Your task to perform on an android device: delete location history Image 0: 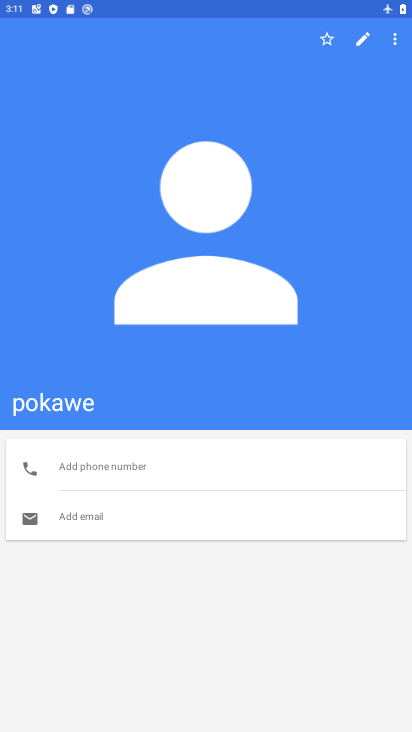
Step 0: press home button
Your task to perform on an android device: delete location history Image 1: 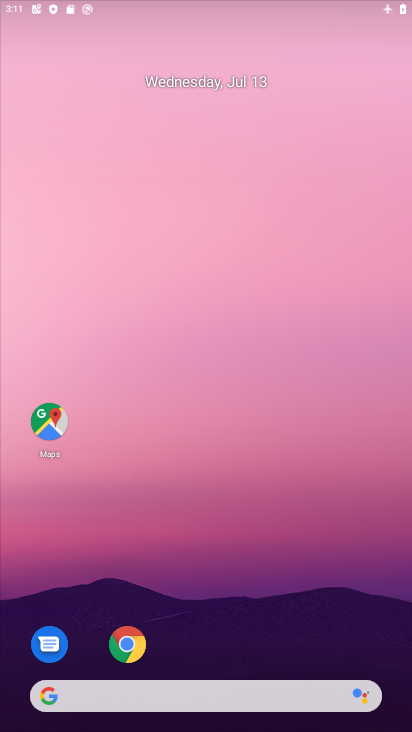
Step 1: drag from (313, 655) to (252, 103)
Your task to perform on an android device: delete location history Image 2: 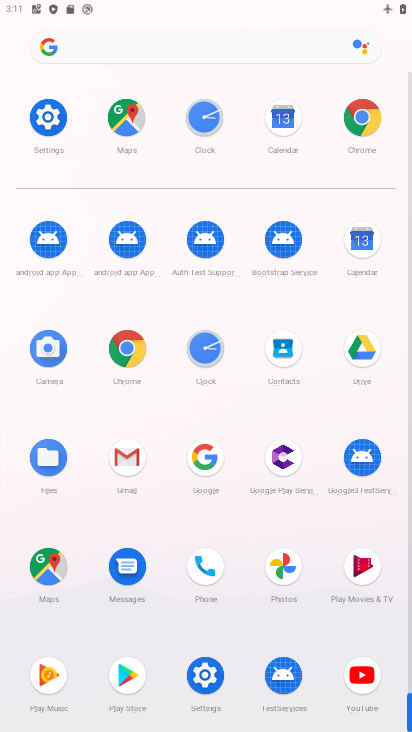
Step 2: click (45, 564)
Your task to perform on an android device: delete location history Image 3: 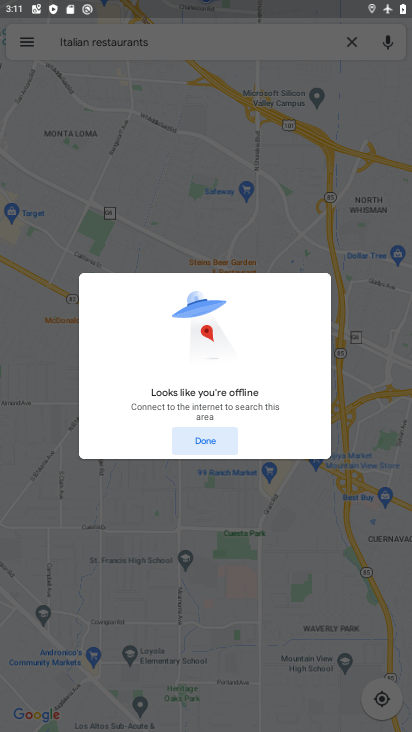
Step 3: click (208, 453)
Your task to perform on an android device: delete location history Image 4: 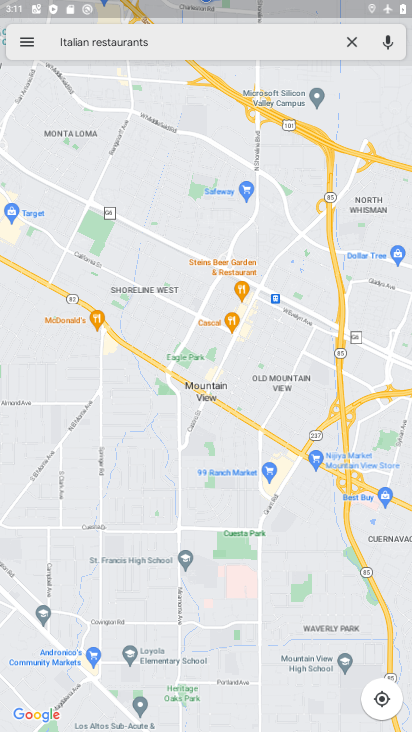
Step 4: click (34, 43)
Your task to perform on an android device: delete location history Image 5: 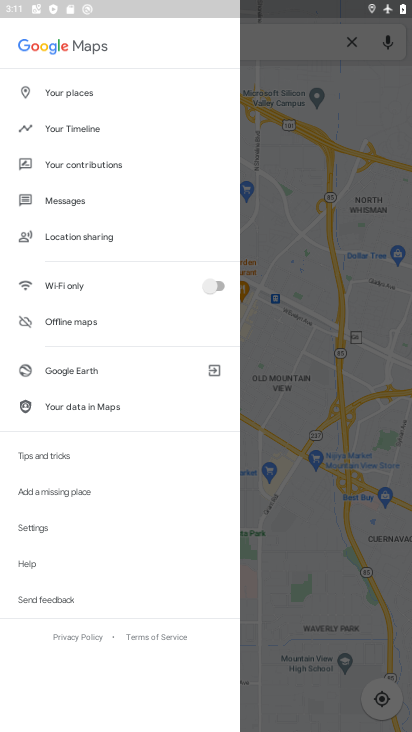
Step 5: click (49, 528)
Your task to perform on an android device: delete location history Image 6: 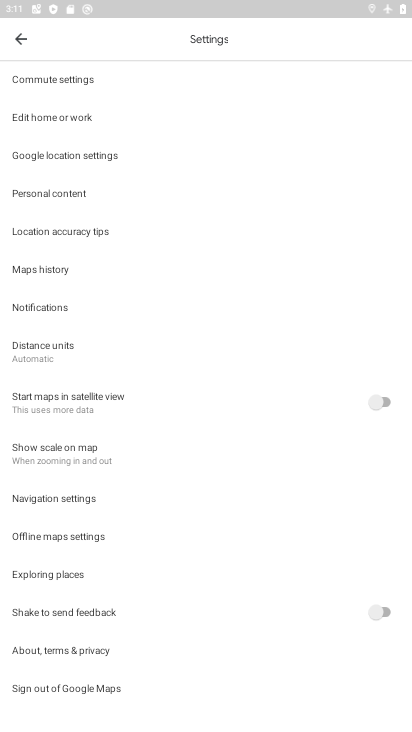
Step 6: click (41, 268)
Your task to perform on an android device: delete location history Image 7: 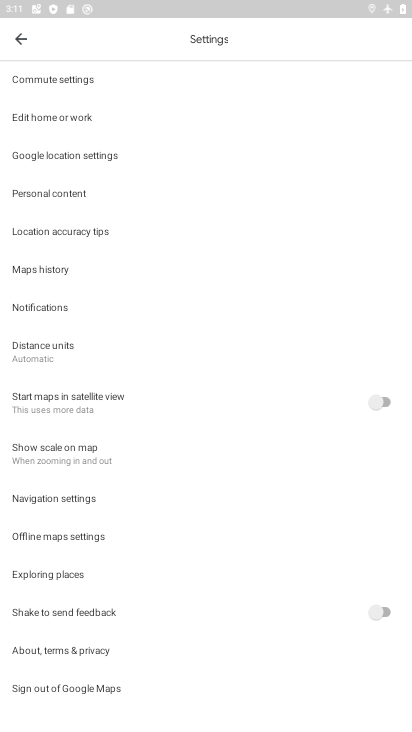
Step 7: task complete